Your task to perform on an android device: see sites visited before in the chrome app Image 0: 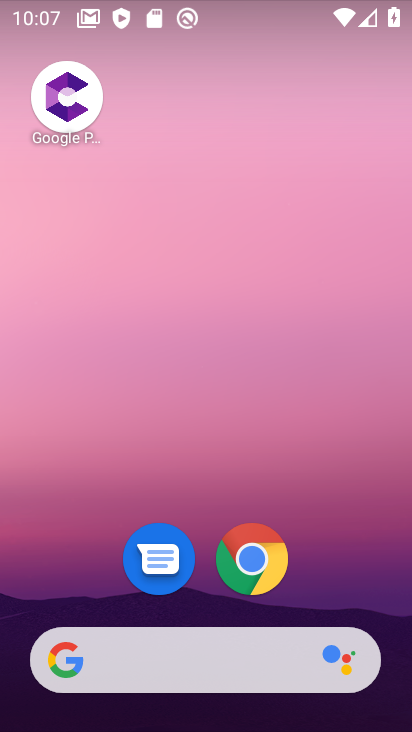
Step 0: drag from (312, 365) to (292, 92)
Your task to perform on an android device: see sites visited before in the chrome app Image 1: 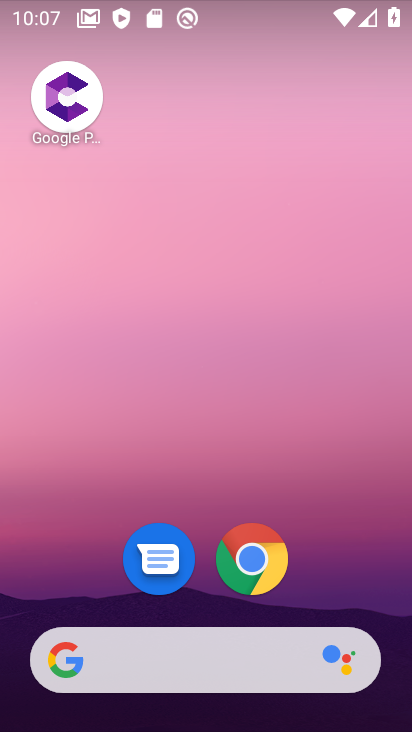
Step 1: drag from (332, 583) to (286, 67)
Your task to perform on an android device: see sites visited before in the chrome app Image 2: 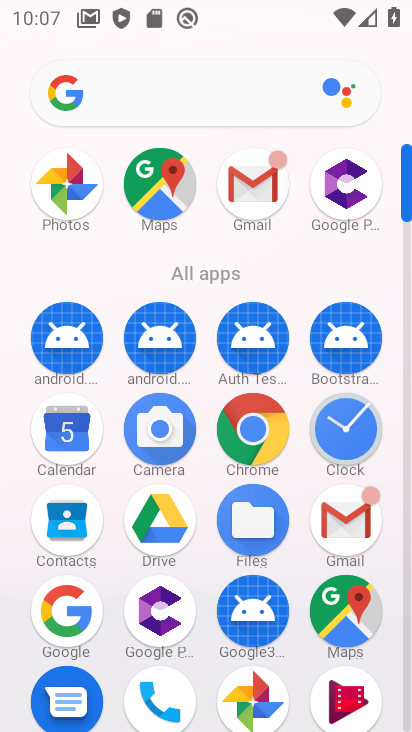
Step 2: click (269, 449)
Your task to perform on an android device: see sites visited before in the chrome app Image 3: 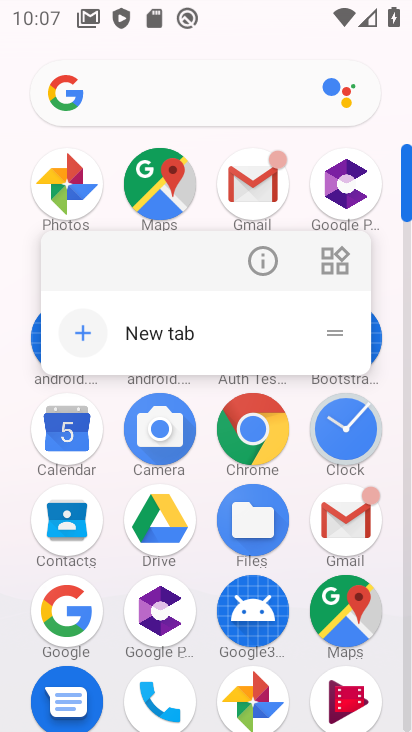
Step 3: click (269, 449)
Your task to perform on an android device: see sites visited before in the chrome app Image 4: 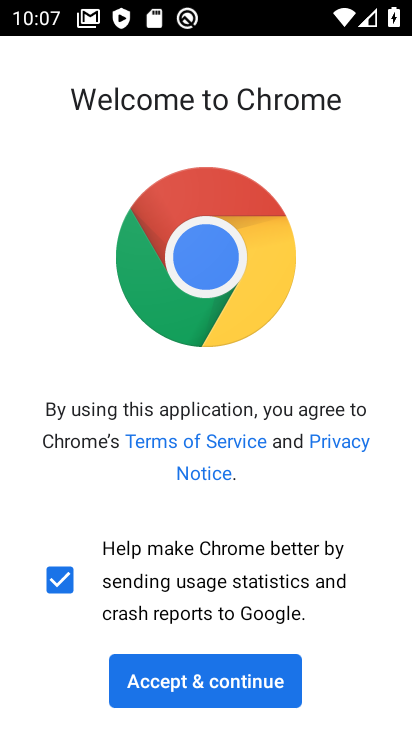
Step 4: click (251, 685)
Your task to perform on an android device: see sites visited before in the chrome app Image 5: 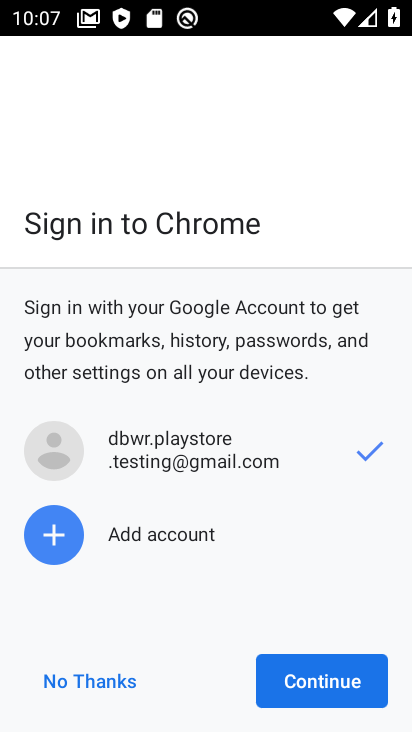
Step 5: click (312, 695)
Your task to perform on an android device: see sites visited before in the chrome app Image 6: 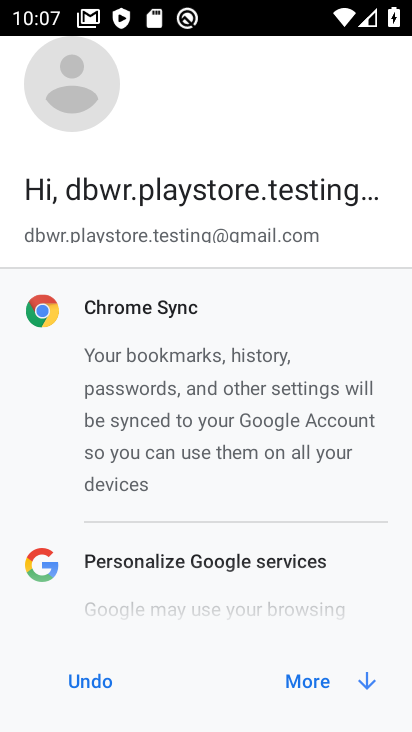
Step 6: click (312, 695)
Your task to perform on an android device: see sites visited before in the chrome app Image 7: 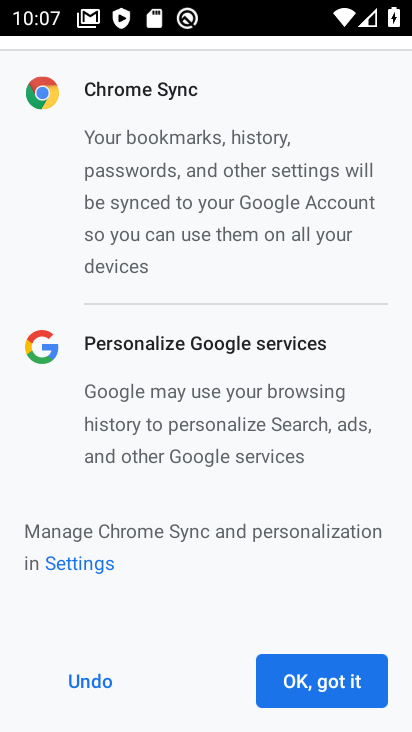
Step 7: click (312, 695)
Your task to perform on an android device: see sites visited before in the chrome app Image 8: 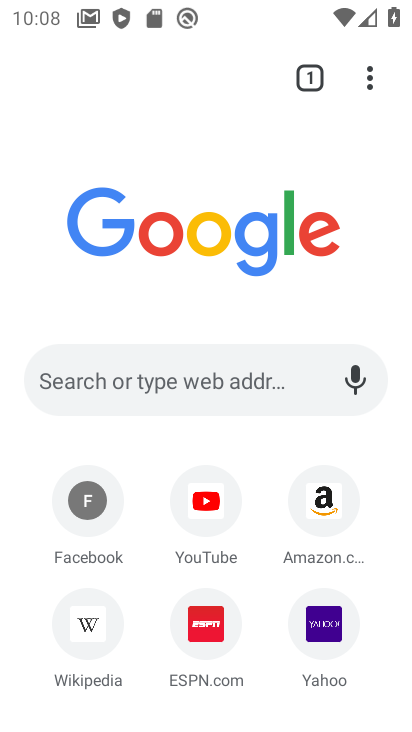
Step 8: task complete